Your task to perform on an android device: Go to display settings Image 0: 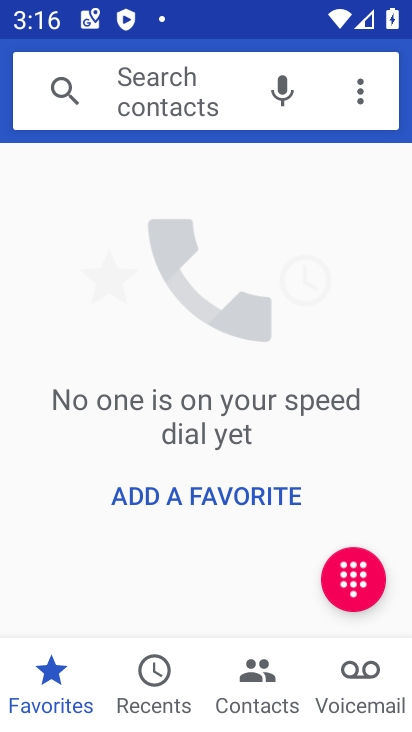
Step 0: press home button
Your task to perform on an android device: Go to display settings Image 1: 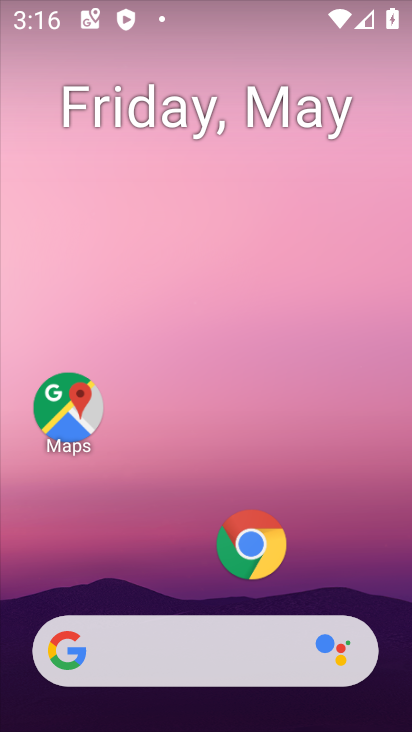
Step 1: drag from (195, 581) to (195, 222)
Your task to perform on an android device: Go to display settings Image 2: 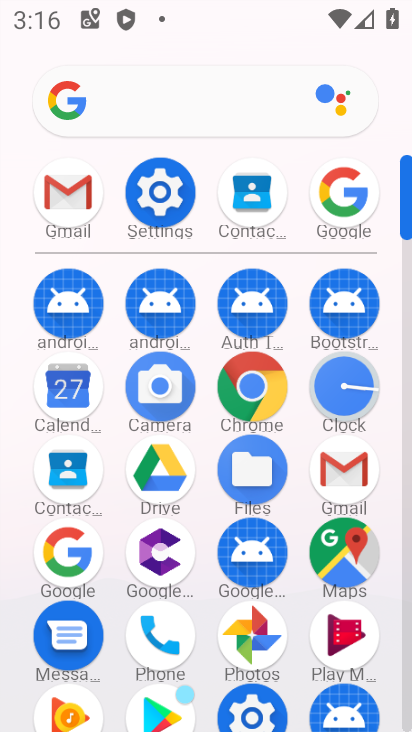
Step 2: click (168, 175)
Your task to perform on an android device: Go to display settings Image 3: 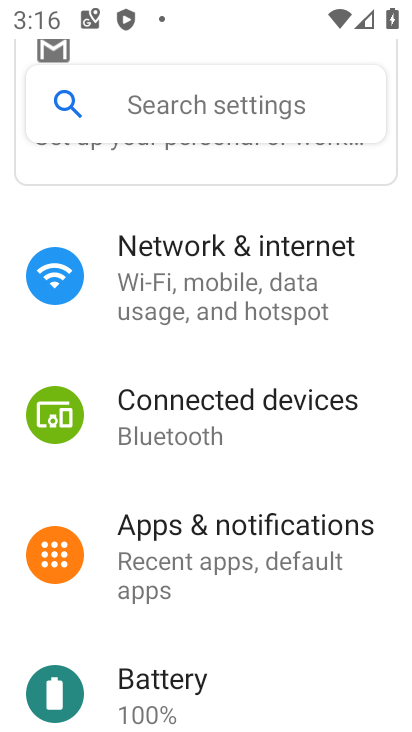
Step 3: drag from (250, 580) to (291, 270)
Your task to perform on an android device: Go to display settings Image 4: 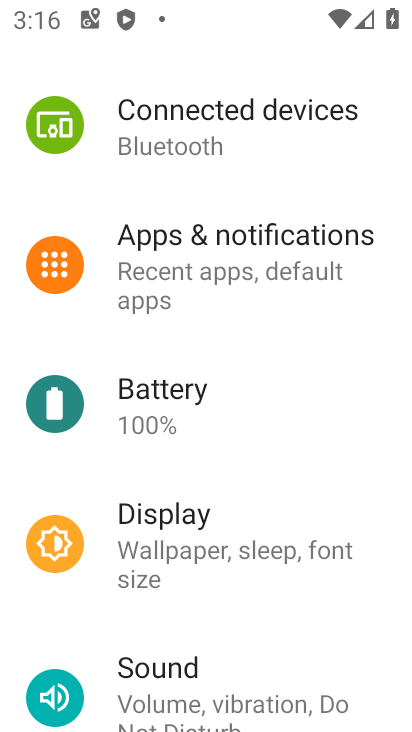
Step 4: click (233, 537)
Your task to perform on an android device: Go to display settings Image 5: 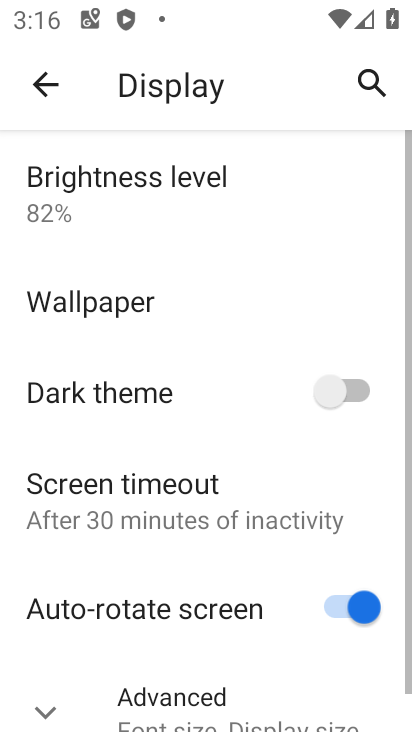
Step 5: task complete